Your task to perform on an android device: open a new tab in the chrome app Image 0: 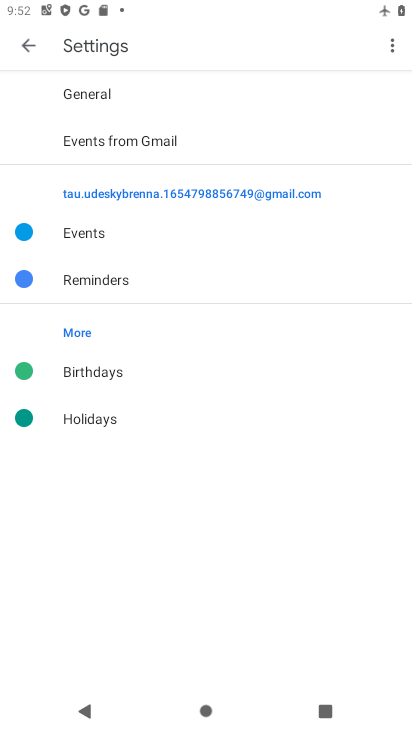
Step 0: press home button
Your task to perform on an android device: open a new tab in the chrome app Image 1: 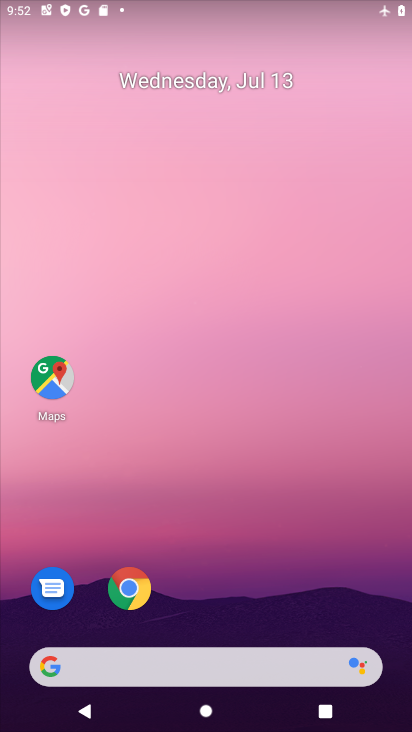
Step 1: click (131, 588)
Your task to perform on an android device: open a new tab in the chrome app Image 2: 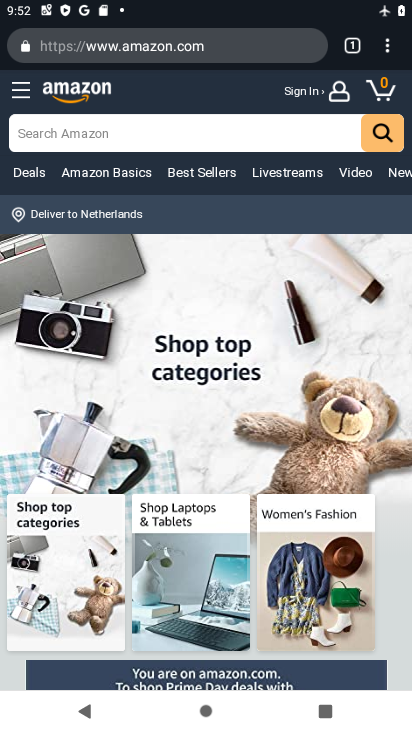
Step 2: click (351, 42)
Your task to perform on an android device: open a new tab in the chrome app Image 3: 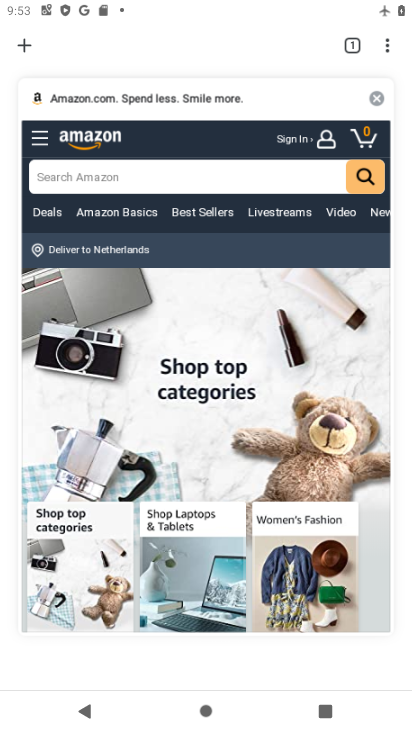
Step 3: click (27, 45)
Your task to perform on an android device: open a new tab in the chrome app Image 4: 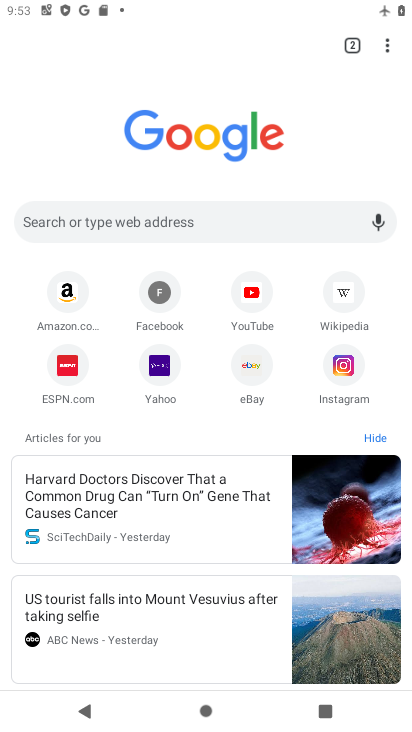
Step 4: task complete